Your task to perform on an android device: Open calendar and show me the fourth week of next month Image 0: 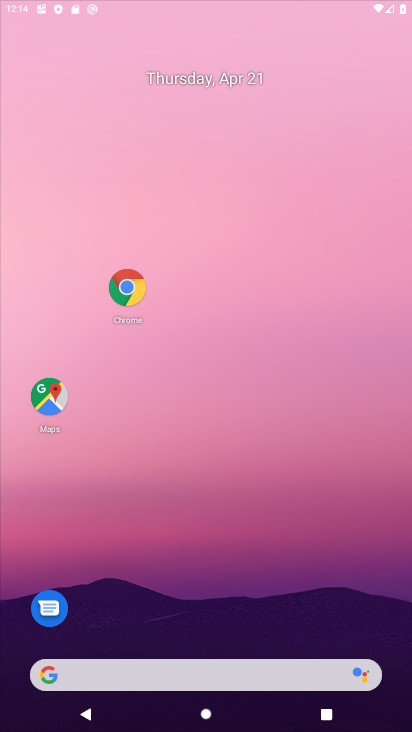
Step 0: click (156, 66)
Your task to perform on an android device: Open calendar and show me the fourth week of next month Image 1: 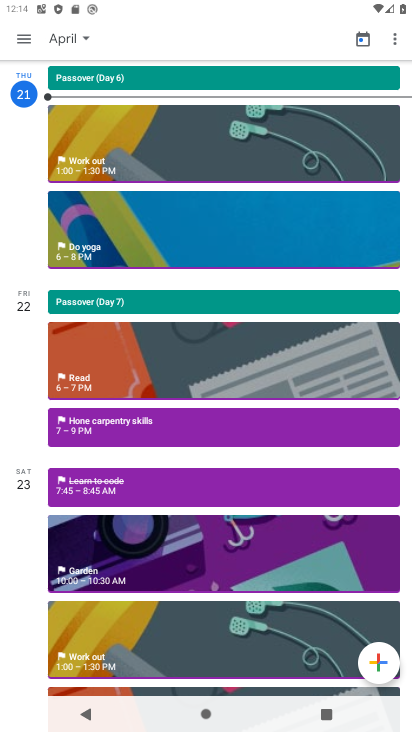
Step 1: click (81, 37)
Your task to perform on an android device: Open calendar and show me the fourth week of next month Image 2: 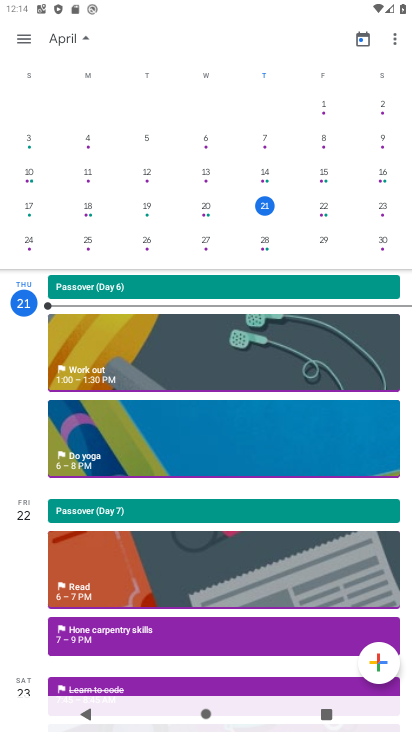
Step 2: drag from (372, 196) to (22, 192)
Your task to perform on an android device: Open calendar and show me the fourth week of next month Image 3: 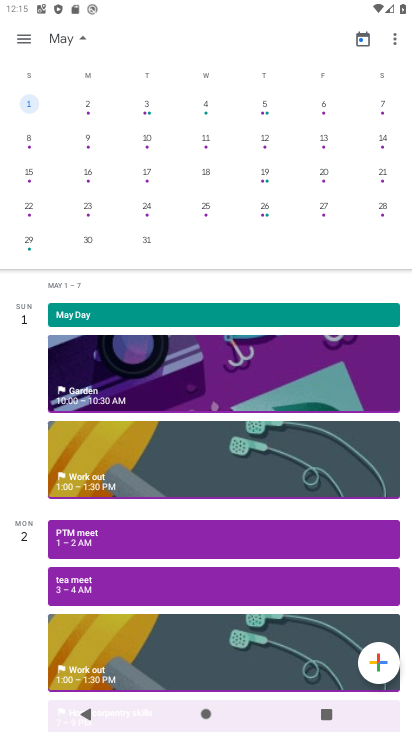
Step 3: click (30, 207)
Your task to perform on an android device: Open calendar and show me the fourth week of next month Image 4: 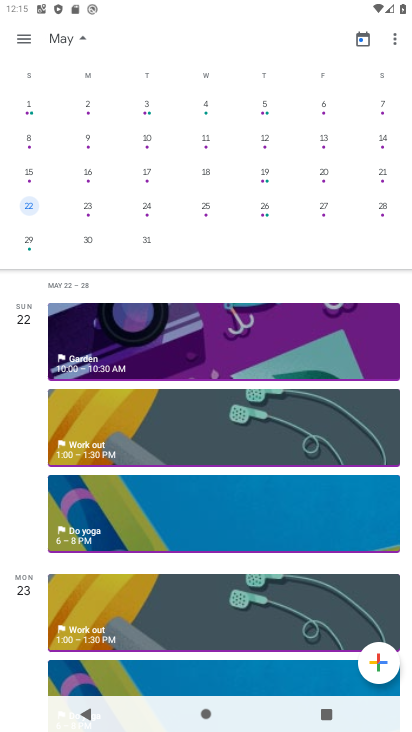
Step 4: click (17, 40)
Your task to perform on an android device: Open calendar and show me the fourth week of next month Image 5: 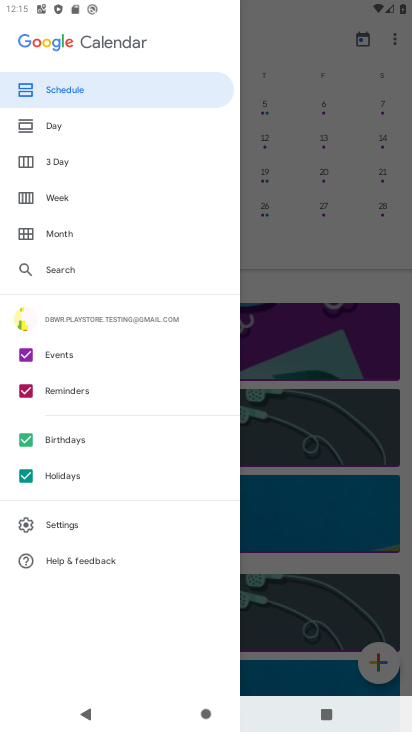
Step 5: click (50, 207)
Your task to perform on an android device: Open calendar and show me the fourth week of next month Image 6: 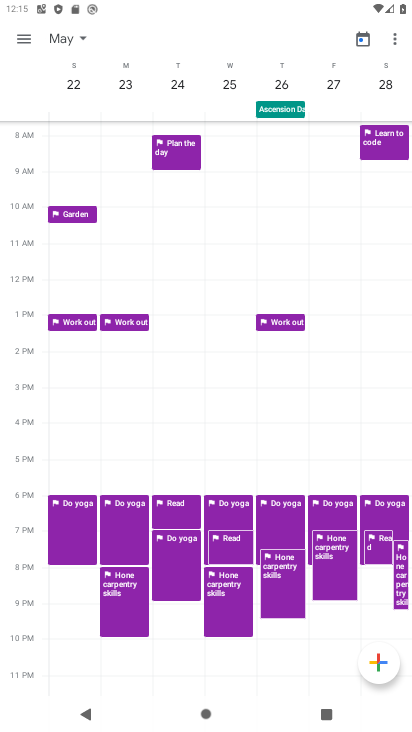
Step 6: task complete